Your task to perform on an android device: Check the weather Image 0: 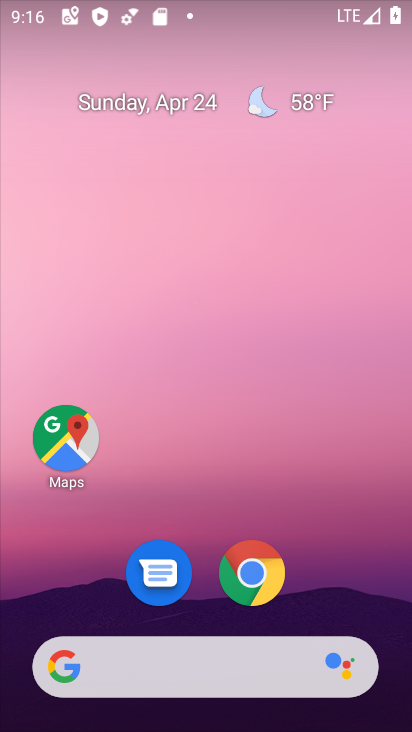
Step 0: drag from (331, 574) to (307, 433)
Your task to perform on an android device: Check the weather Image 1: 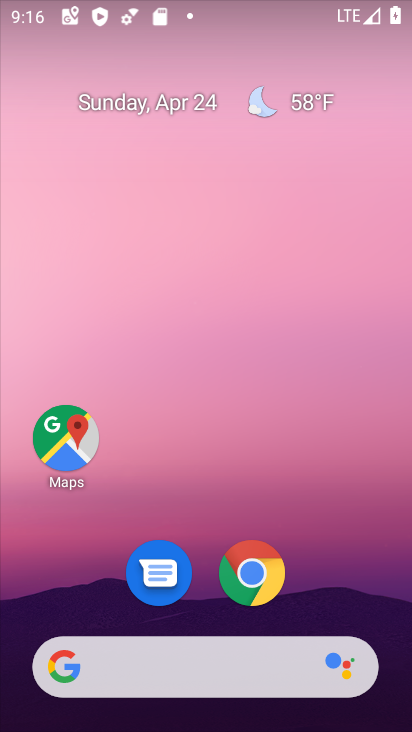
Step 1: click (315, 106)
Your task to perform on an android device: Check the weather Image 2: 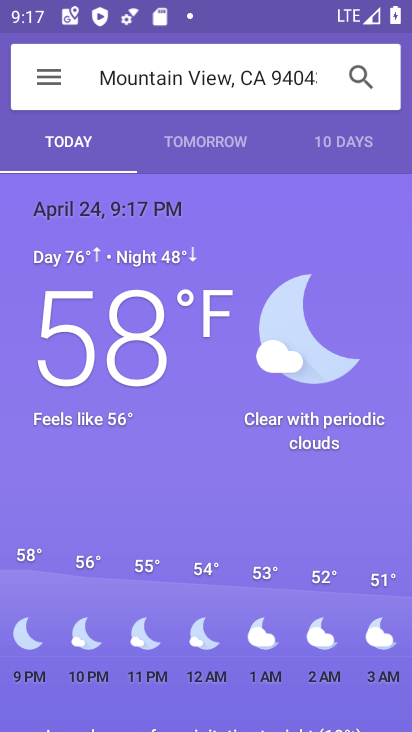
Step 2: task complete